Your task to perform on an android device: turn off wifi Image 0: 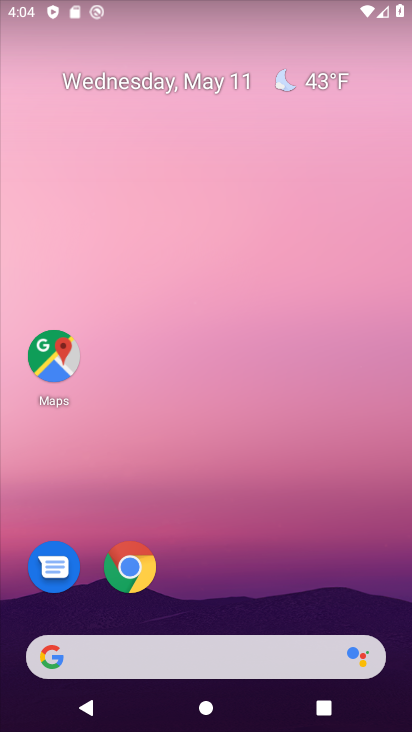
Step 0: drag from (204, 602) to (224, 25)
Your task to perform on an android device: turn off wifi Image 1: 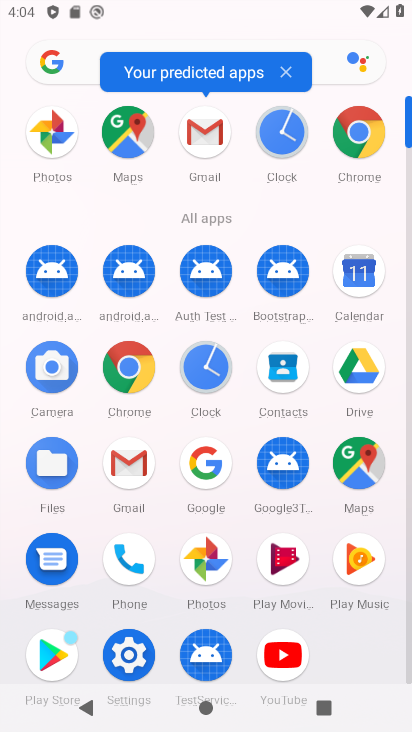
Step 1: click (140, 654)
Your task to perform on an android device: turn off wifi Image 2: 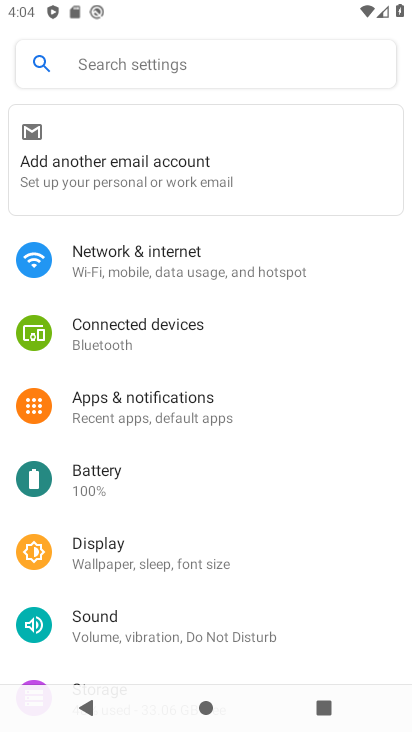
Step 2: click (179, 260)
Your task to perform on an android device: turn off wifi Image 3: 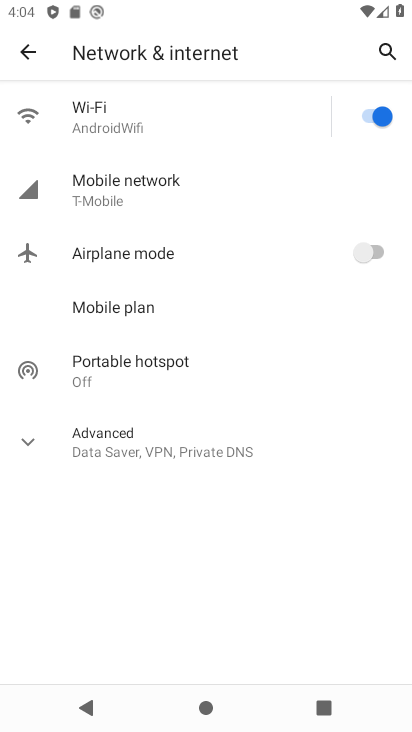
Step 3: click (385, 118)
Your task to perform on an android device: turn off wifi Image 4: 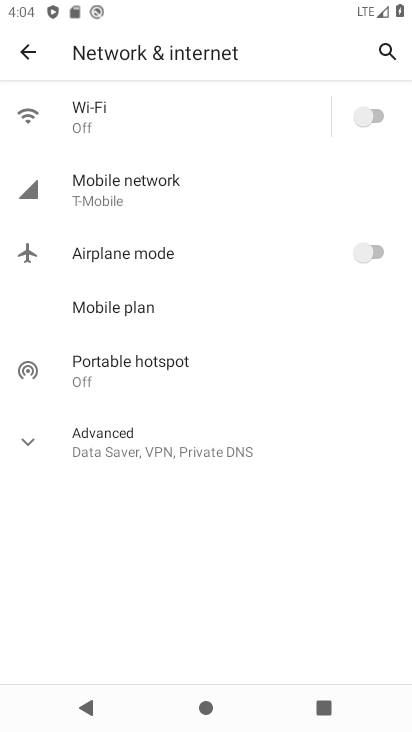
Step 4: task complete